Your task to perform on an android device: see sites visited before in the chrome app Image 0: 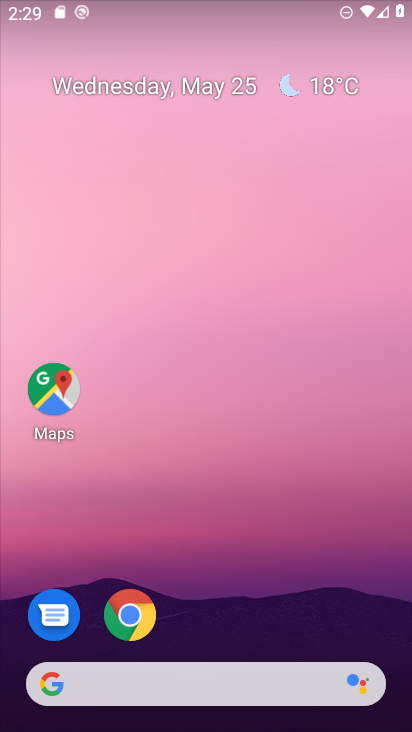
Step 0: click (141, 605)
Your task to perform on an android device: see sites visited before in the chrome app Image 1: 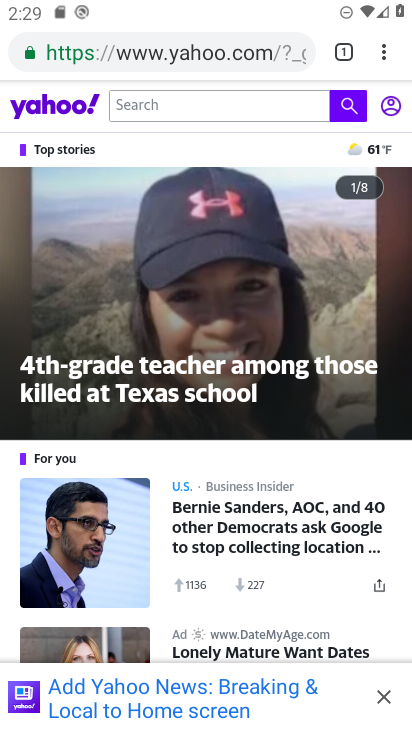
Step 1: click (379, 47)
Your task to perform on an android device: see sites visited before in the chrome app Image 2: 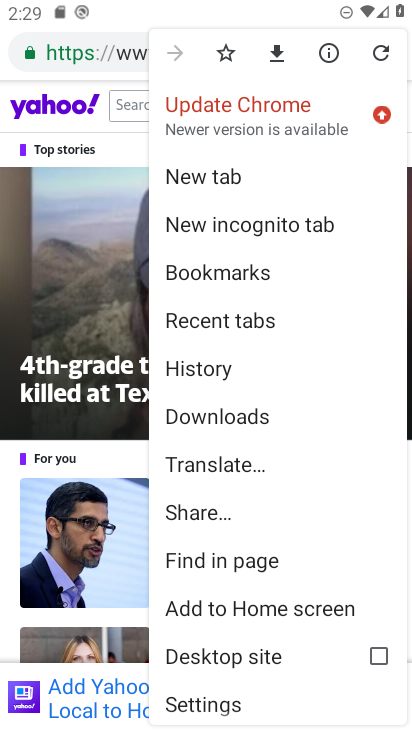
Step 2: click (220, 314)
Your task to perform on an android device: see sites visited before in the chrome app Image 3: 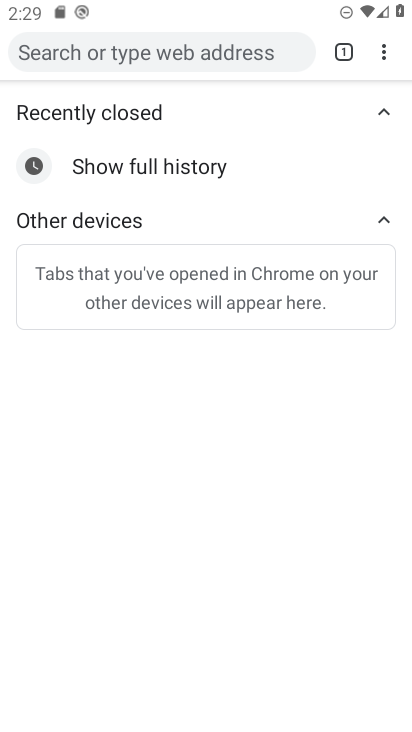
Step 3: task complete